Your task to perform on an android device: What's on my calendar today? Image 0: 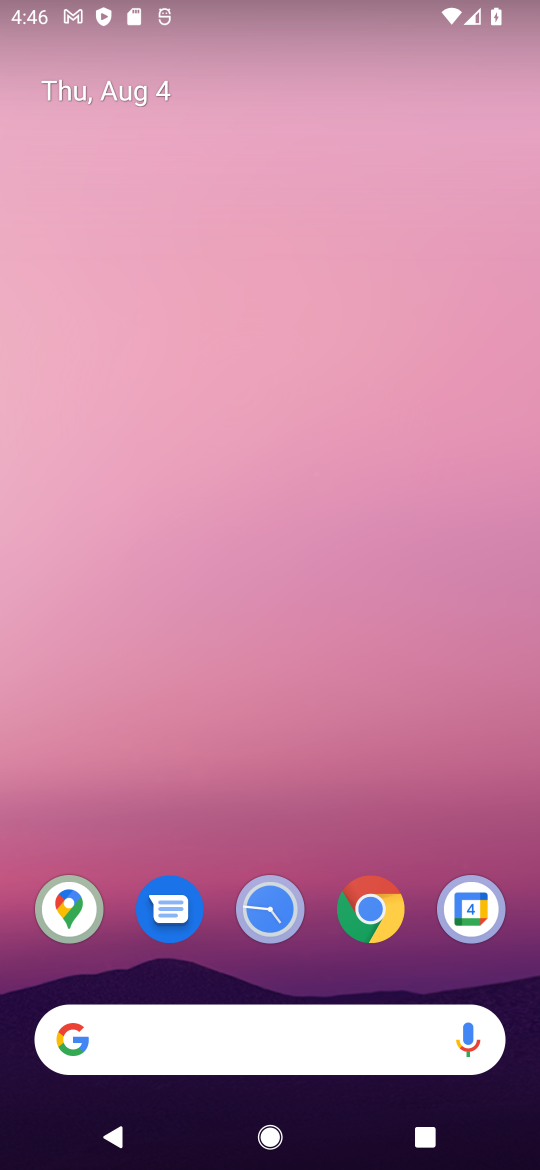
Step 0: drag from (206, 969) to (215, 84)
Your task to perform on an android device: What's on my calendar today? Image 1: 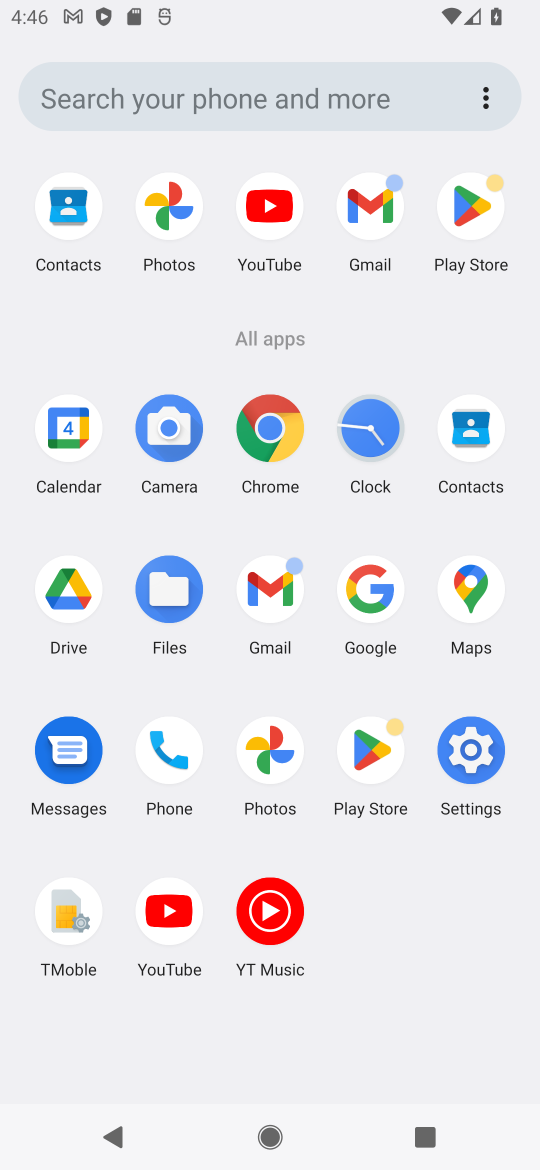
Step 1: click (55, 440)
Your task to perform on an android device: What's on my calendar today? Image 2: 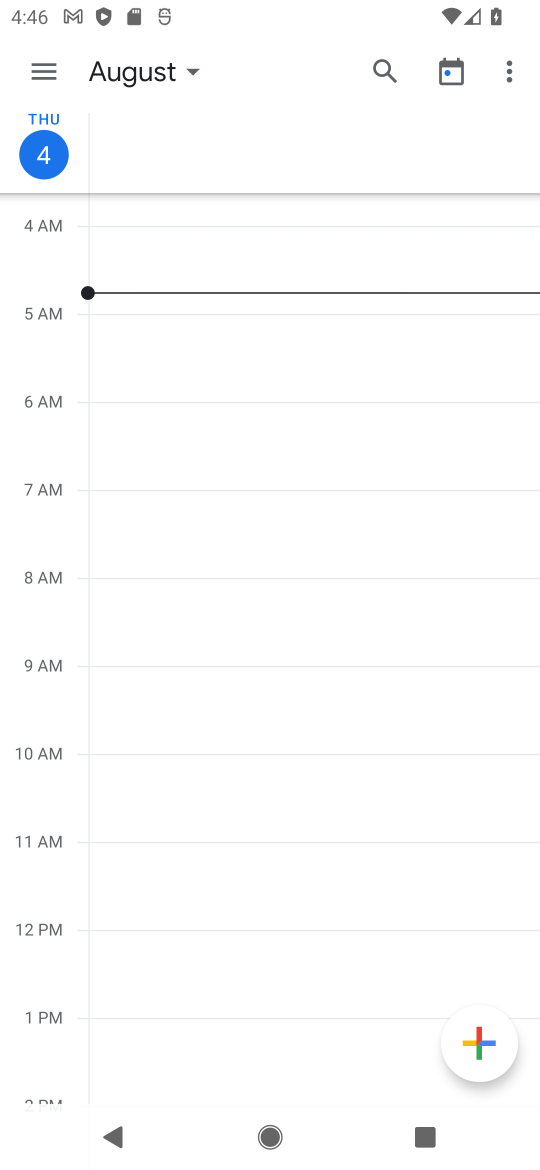
Step 2: click (44, 73)
Your task to perform on an android device: What's on my calendar today? Image 3: 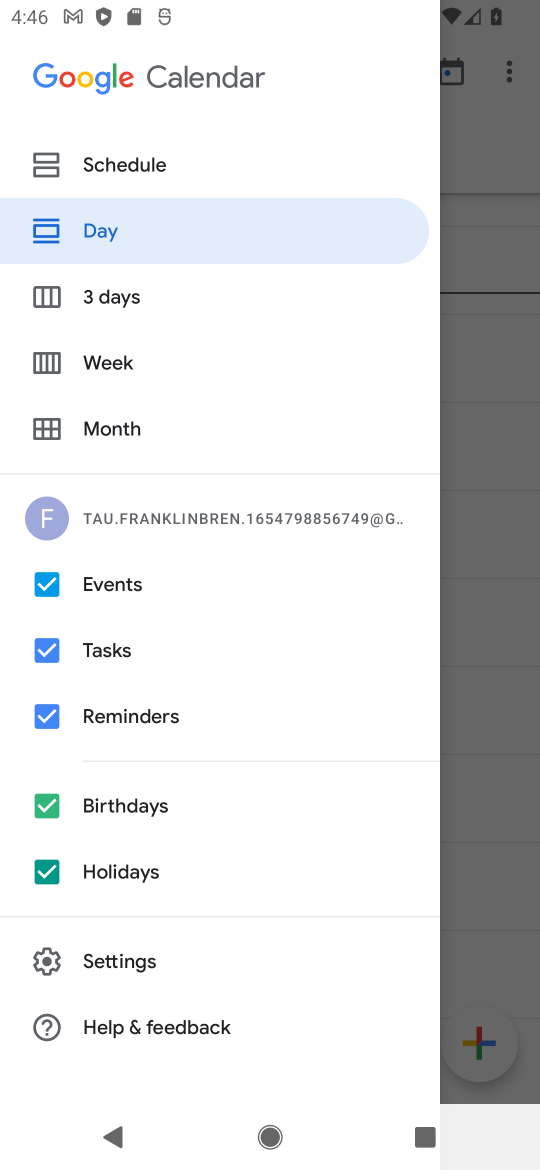
Step 3: click (129, 239)
Your task to perform on an android device: What's on my calendar today? Image 4: 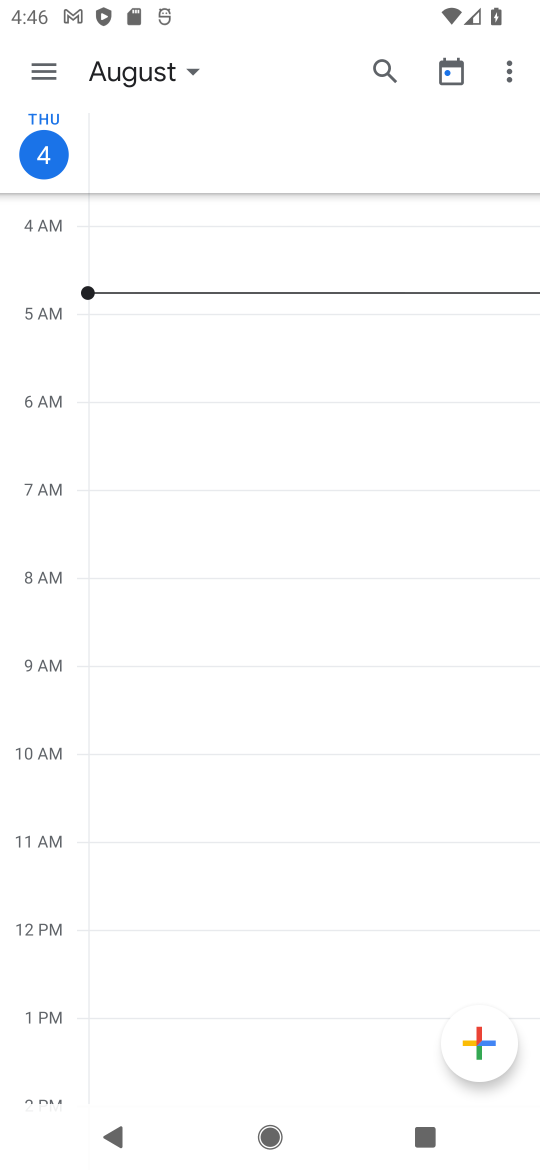
Step 4: task complete